Your task to perform on an android device: Go to internet settings Image 0: 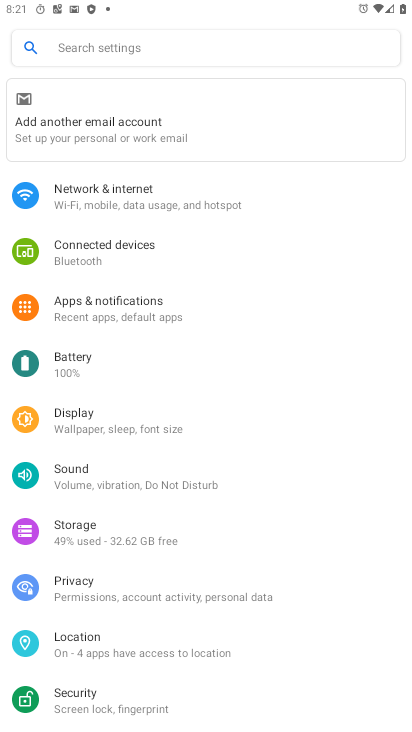
Step 0: click (143, 197)
Your task to perform on an android device: Go to internet settings Image 1: 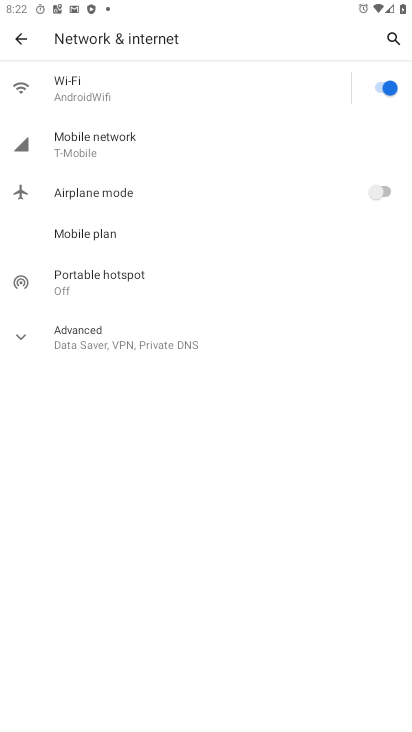
Step 1: click (91, 88)
Your task to perform on an android device: Go to internet settings Image 2: 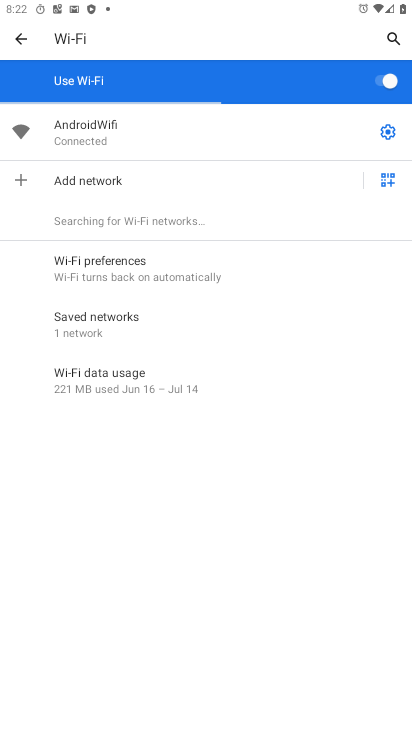
Step 2: task complete